Your task to perform on an android device: toggle show notifications on the lock screen Image 0: 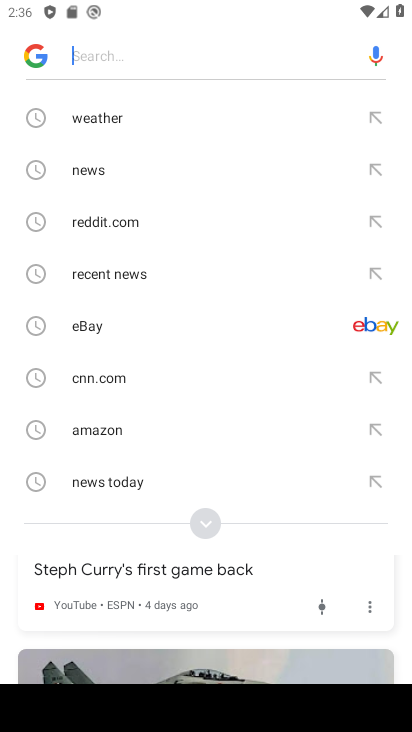
Step 0: press home button
Your task to perform on an android device: toggle show notifications on the lock screen Image 1: 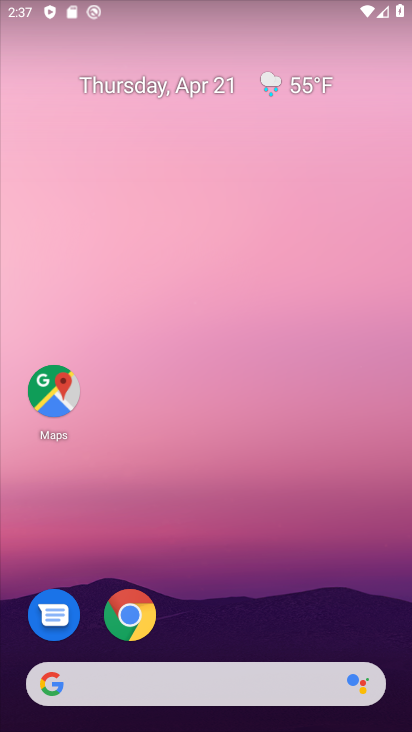
Step 1: drag from (210, 6) to (104, 535)
Your task to perform on an android device: toggle show notifications on the lock screen Image 2: 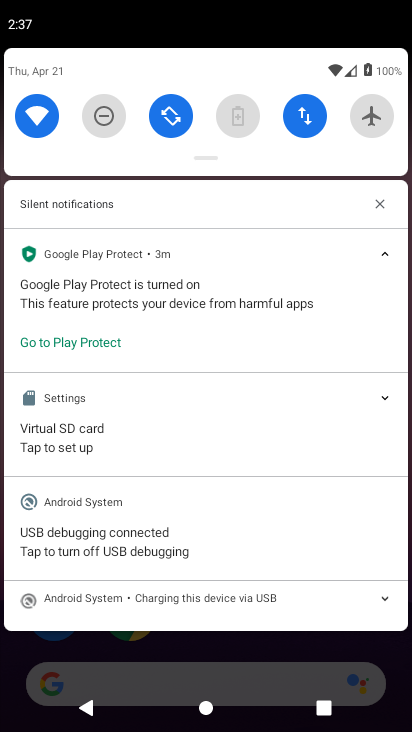
Step 2: drag from (186, 72) to (42, 573)
Your task to perform on an android device: toggle show notifications on the lock screen Image 3: 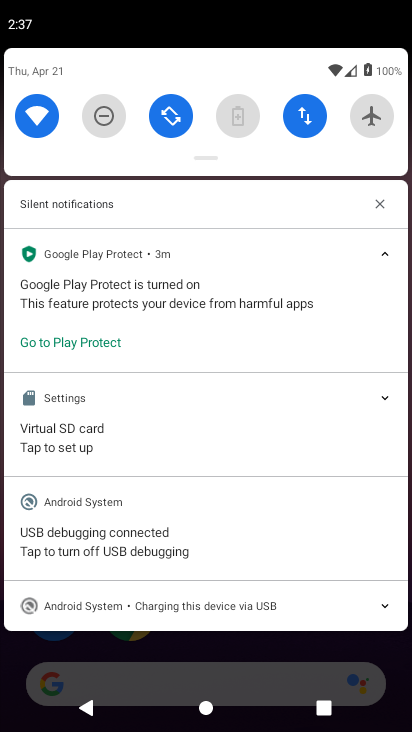
Step 3: drag from (177, 77) to (82, 677)
Your task to perform on an android device: toggle show notifications on the lock screen Image 4: 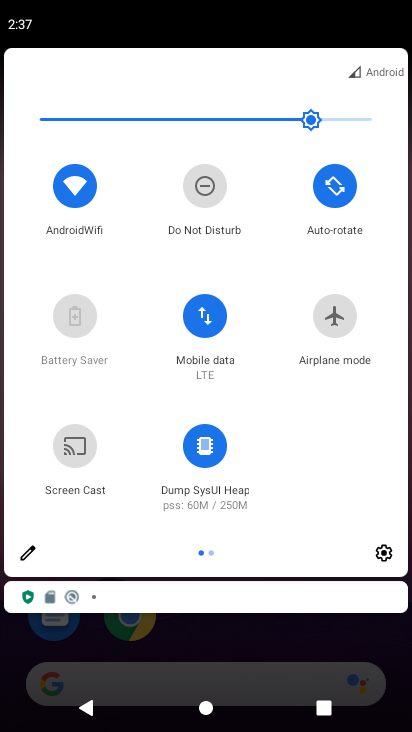
Step 4: click (386, 550)
Your task to perform on an android device: toggle show notifications on the lock screen Image 5: 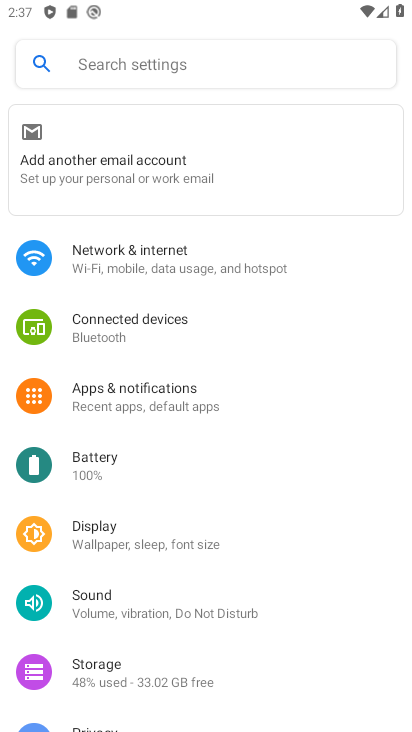
Step 5: click (161, 387)
Your task to perform on an android device: toggle show notifications on the lock screen Image 6: 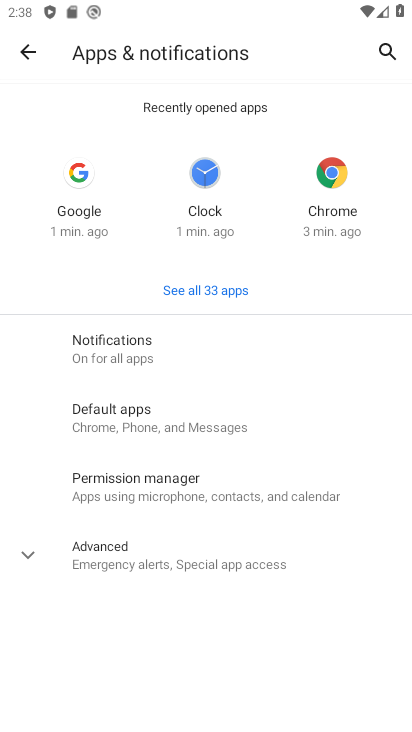
Step 6: click (77, 335)
Your task to perform on an android device: toggle show notifications on the lock screen Image 7: 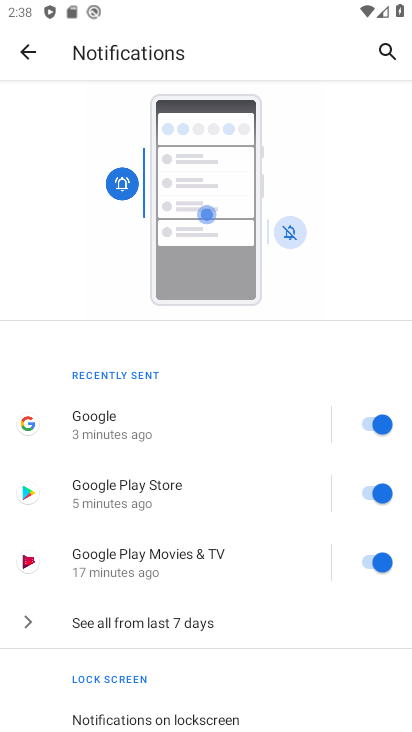
Step 7: drag from (219, 681) to (269, 357)
Your task to perform on an android device: toggle show notifications on the lock screen Image 8: 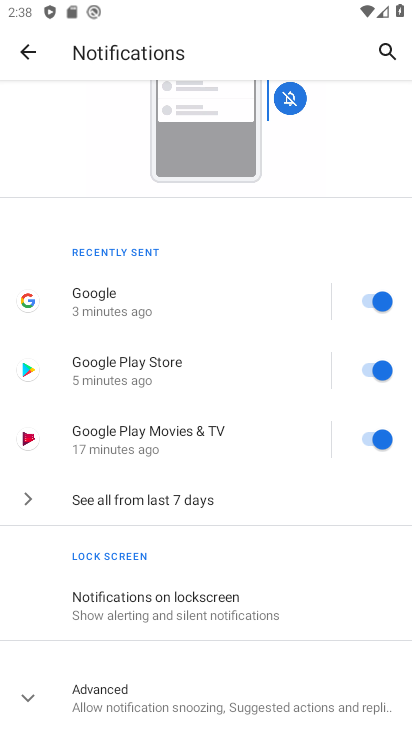
Step 8: click (164, 617)
Your task to perform on an android device: toggle show notifications on the lock screen Image 9: 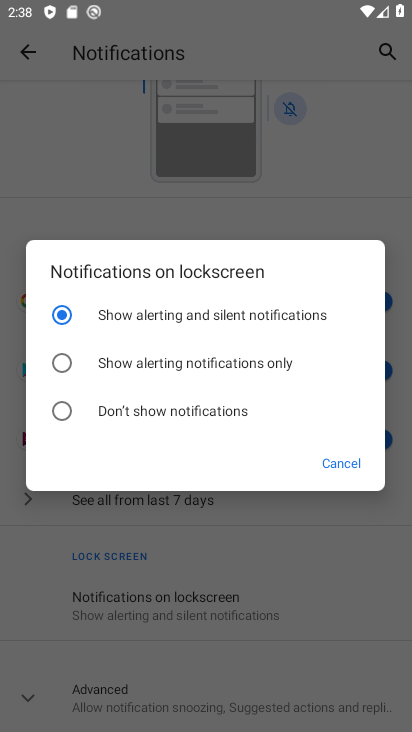
Step 9: click (136, 363)
Your task to perform on an android device: toggle show notifications on the lock screen Image 10: 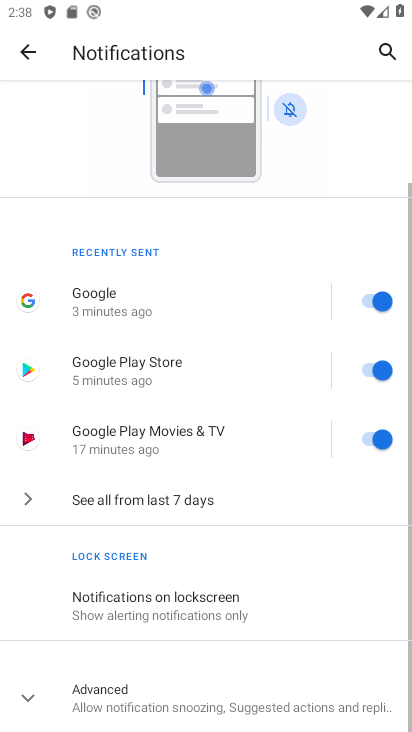
Step 10: task complete